Your task to perform on an android device: check storage Image 0: 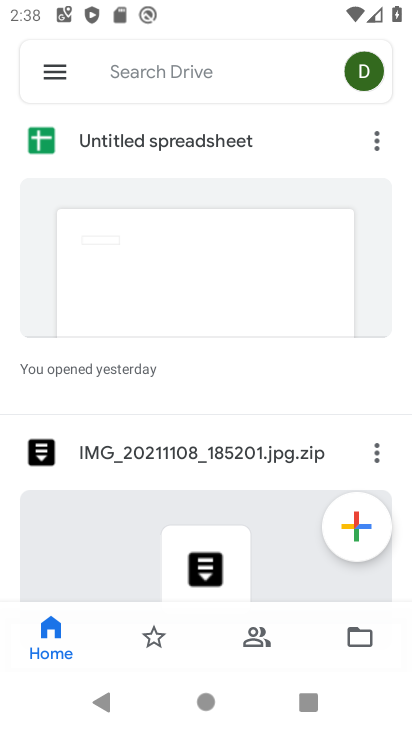
Step 0: press home button
Your task to perform on an android device: check storage Image 1: 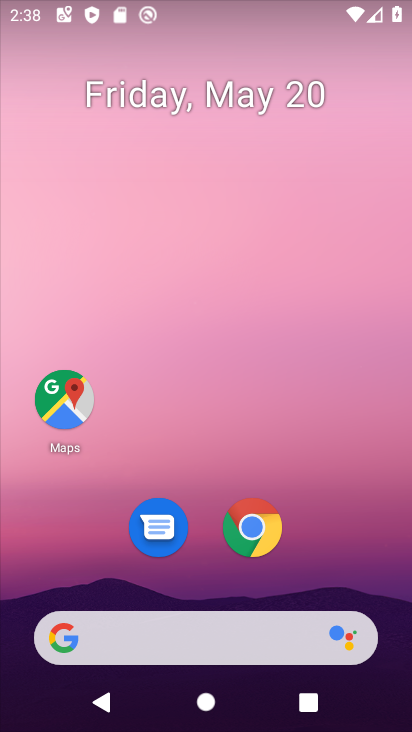
Step 1: drag from (268, 622) to (357, 43)
Your task to perform on an android device: check storage Image 2: 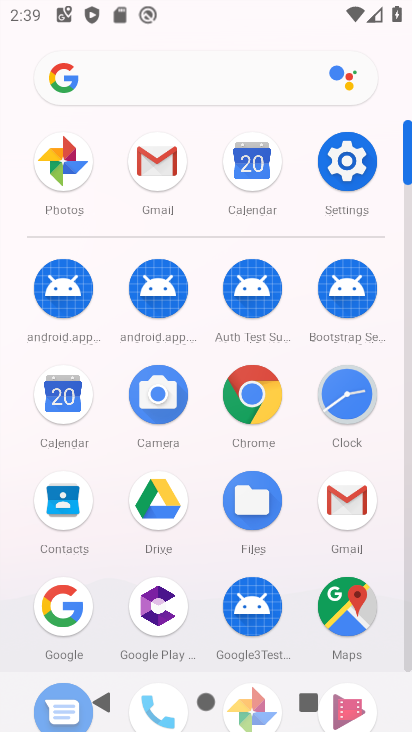
Step 2: click (360, 157)
Your task to perform on an android device: check storage Image 3: 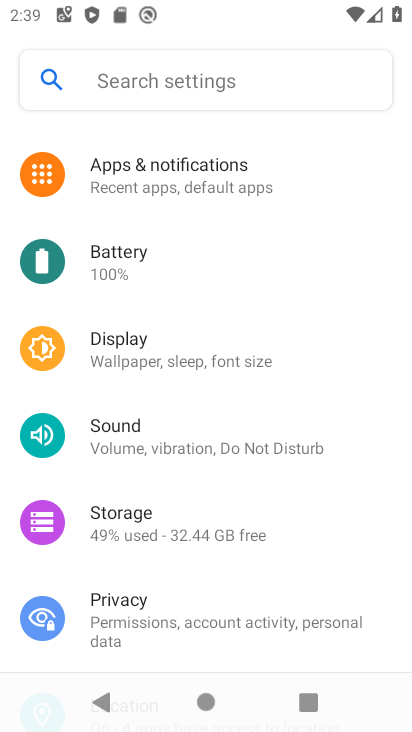
Step 3: click (196, 535)
Your task to perform on an android device: check storage Image 4: 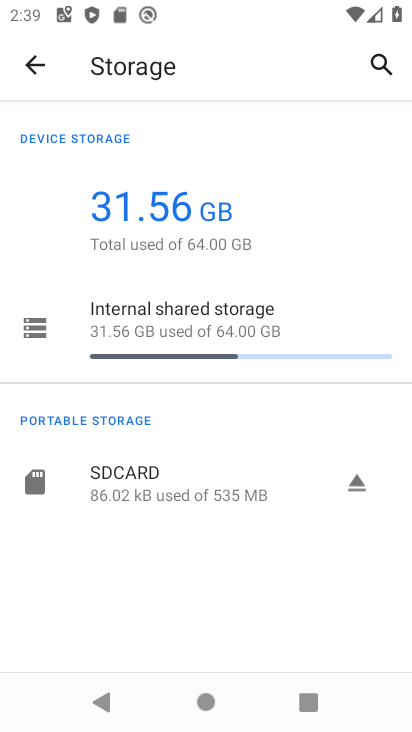
Step 4: task complete